Your task to perform on an android device: turn on airplane mode Image 0: 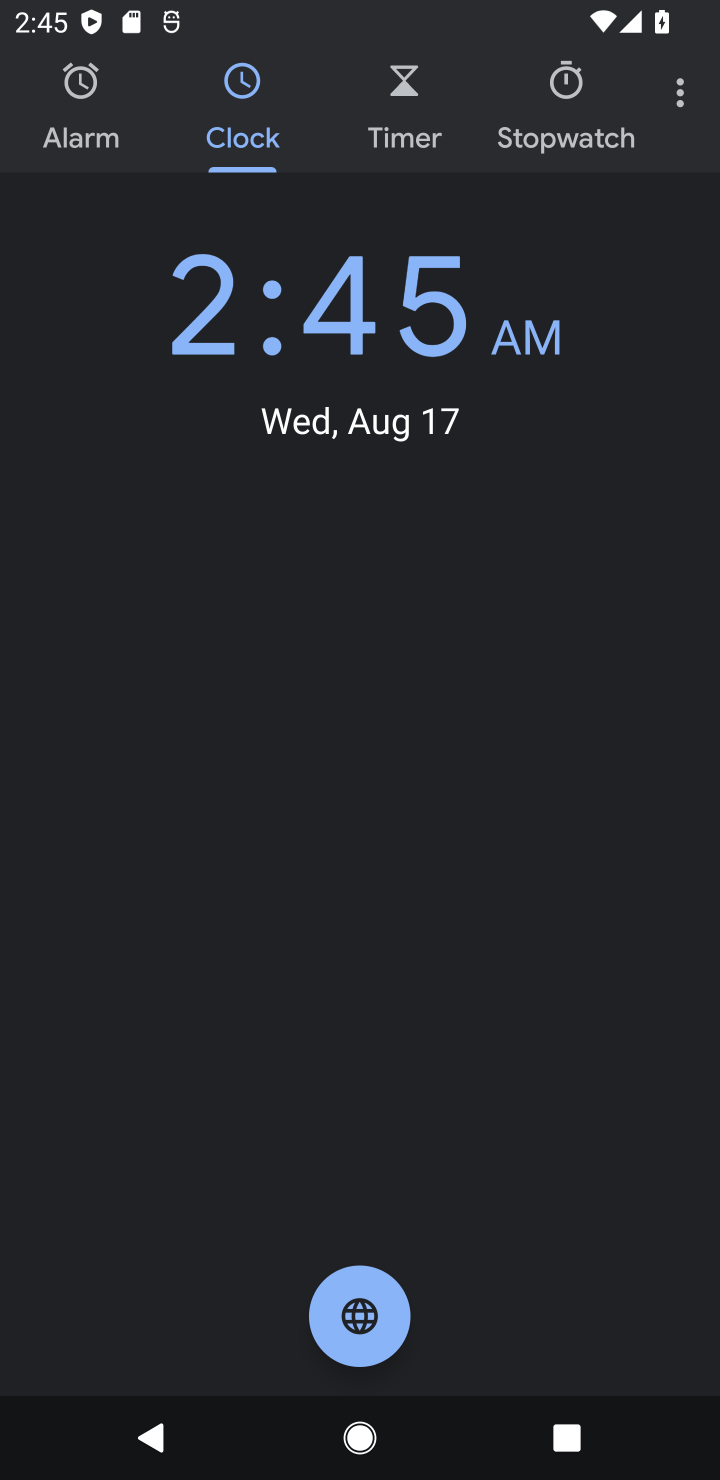
Step 0: press home button
Your task to perform on an android device: turn on airplane mode Image 1: 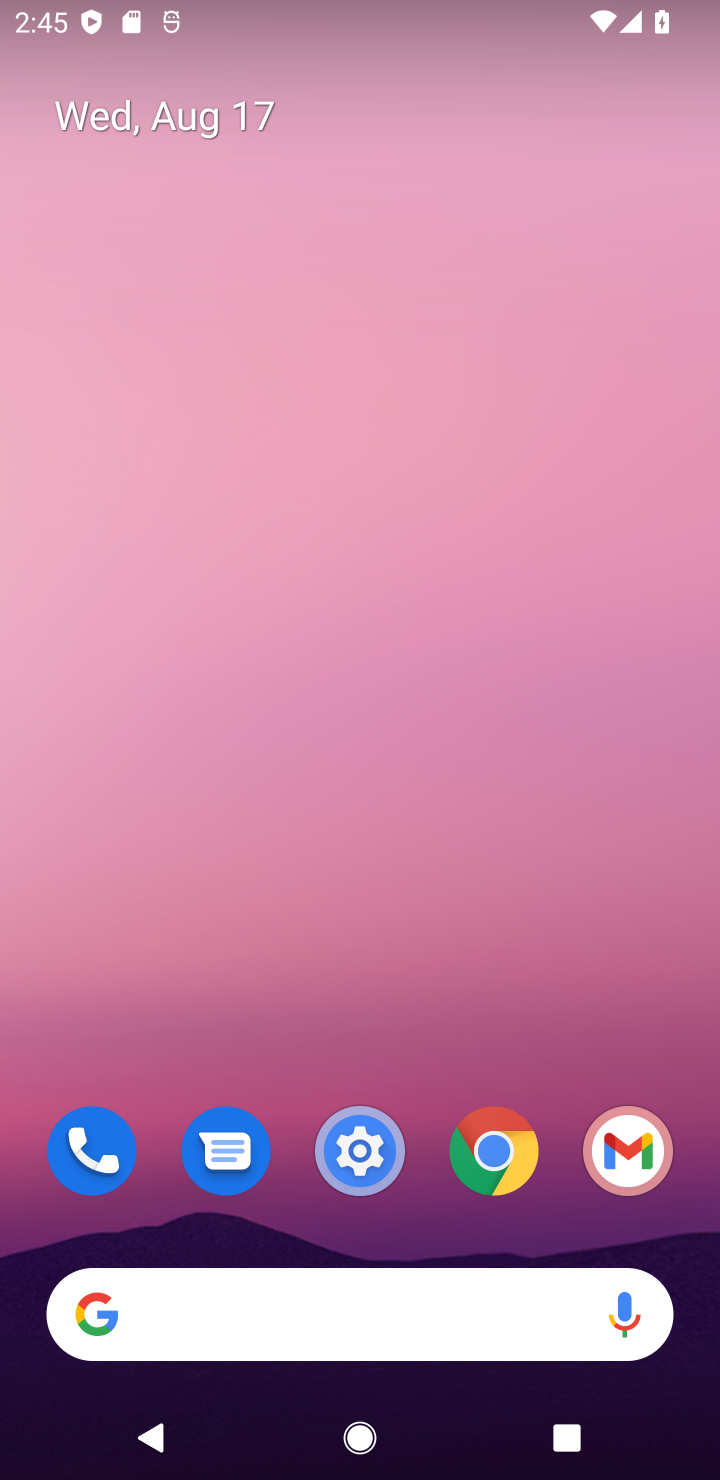
Step 1: drag from (298, 1205) to (318, 608)
Your task to perform on an android device: turn on airplane mode Image 2: 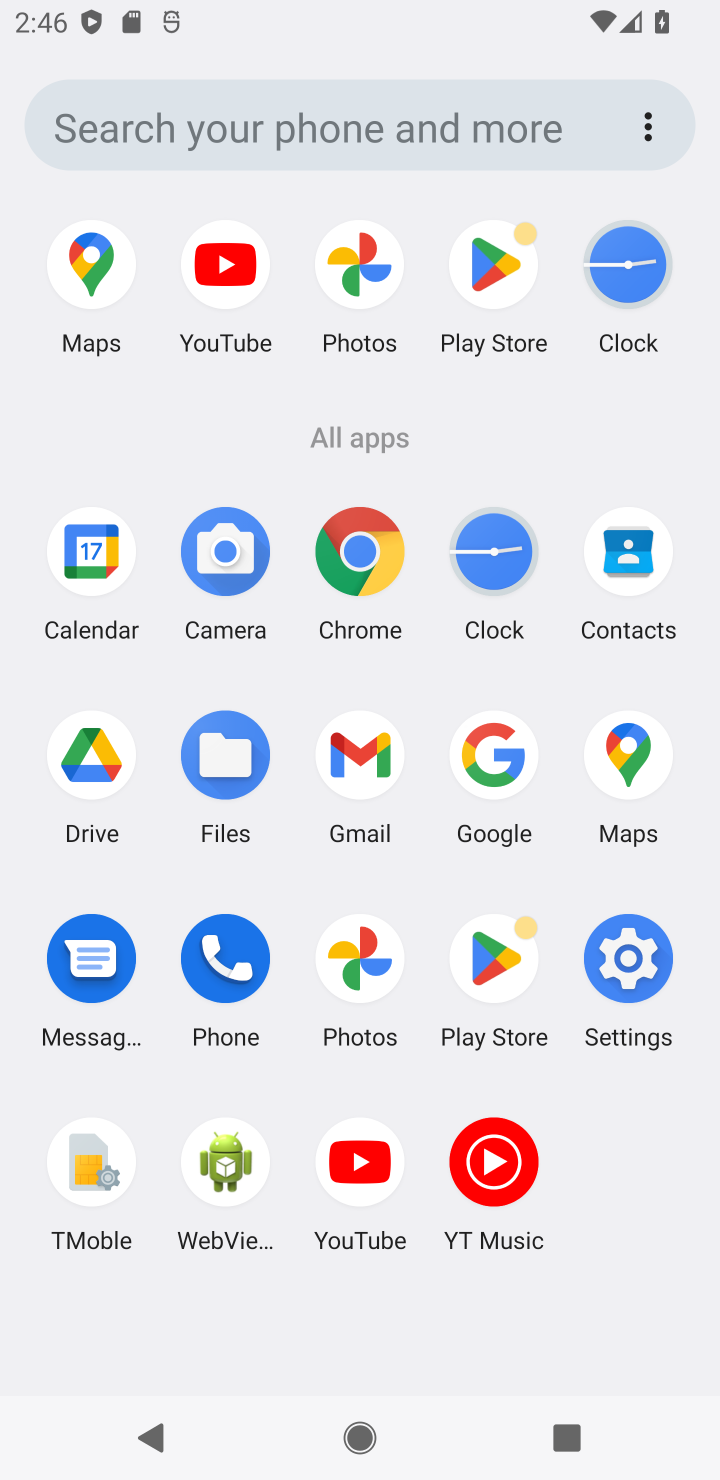
Step 2: click (642, 940)
Your task to perform on an android device: turn on airplane mode Image 3: 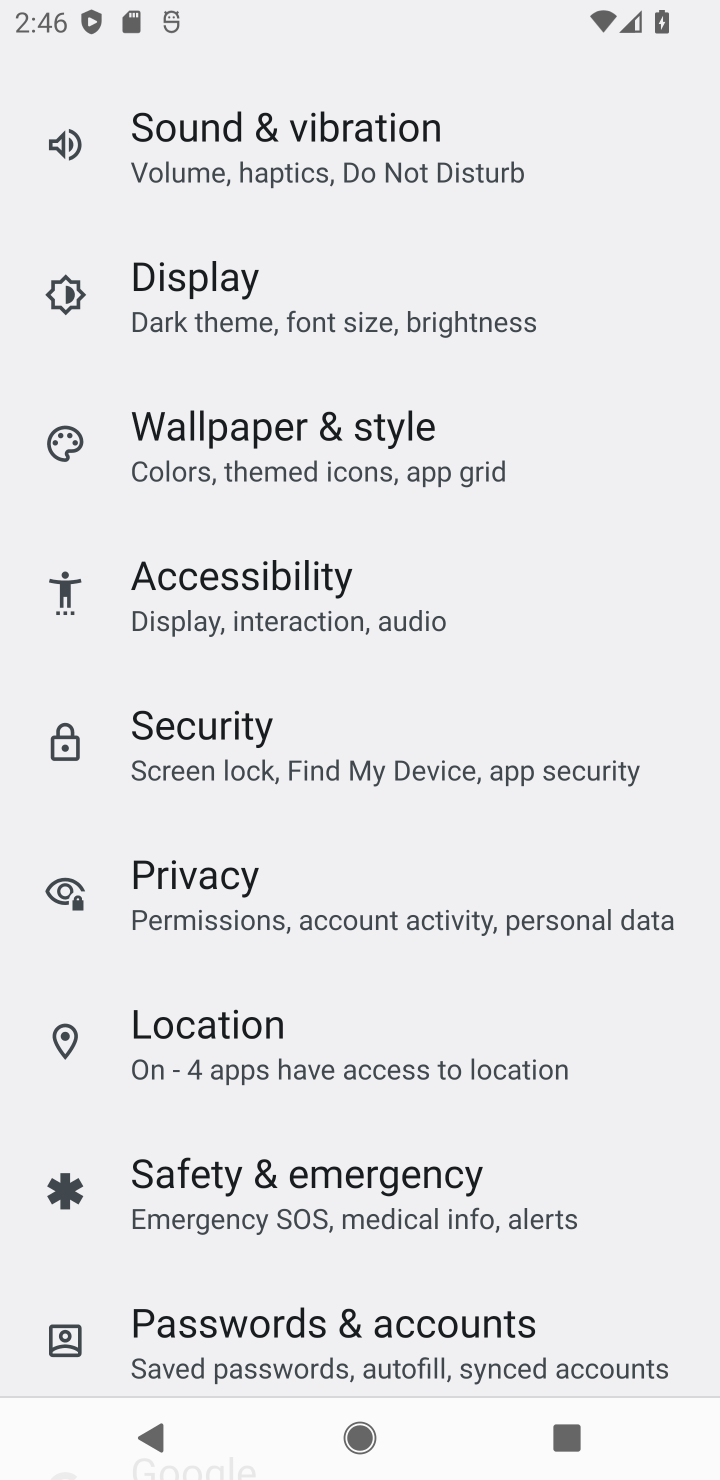
Step 3: drag from (372, 229) to (393, 1413)
Your task to perform on an android device: turn on airplane mode Image 4: 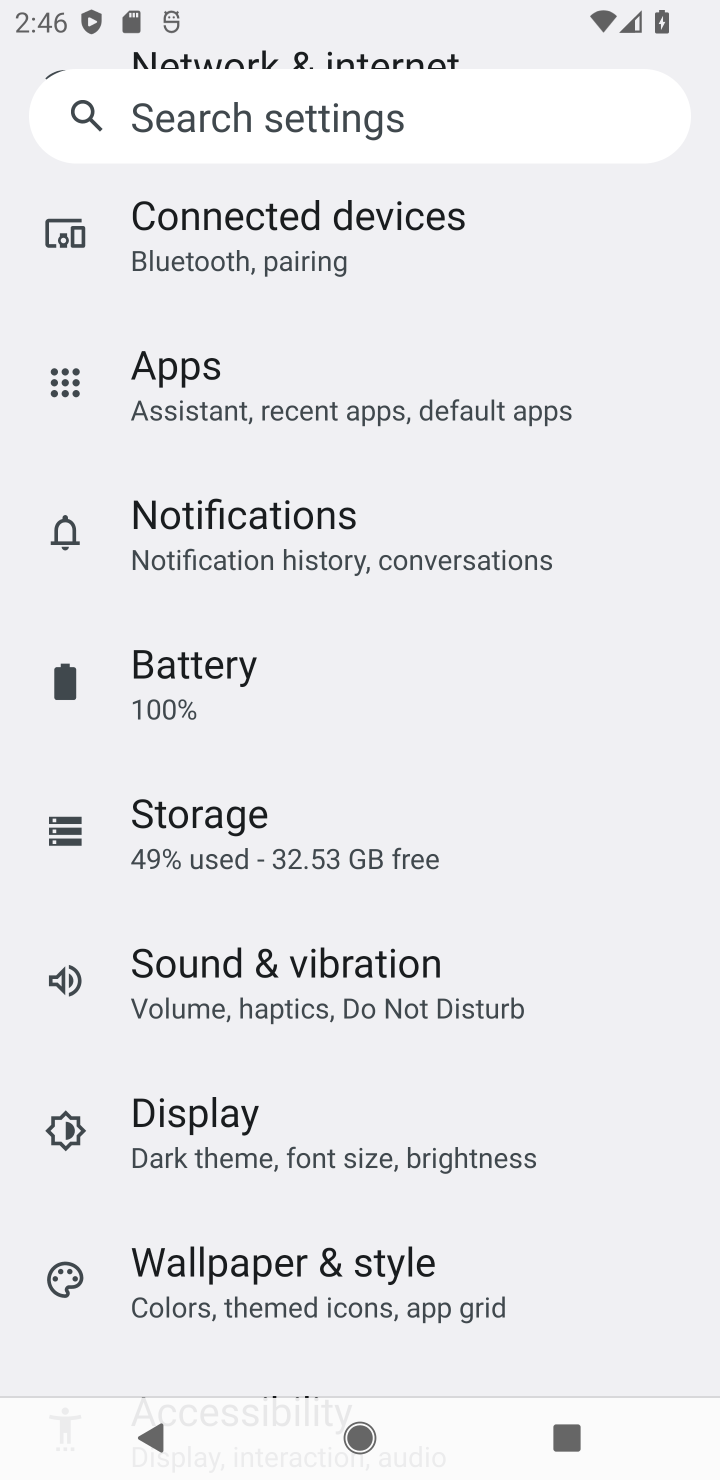
Step 4: drag from (250, 486) to (298, 1208)
Your task to perform on an android device: turn on airplane mode Image 5: 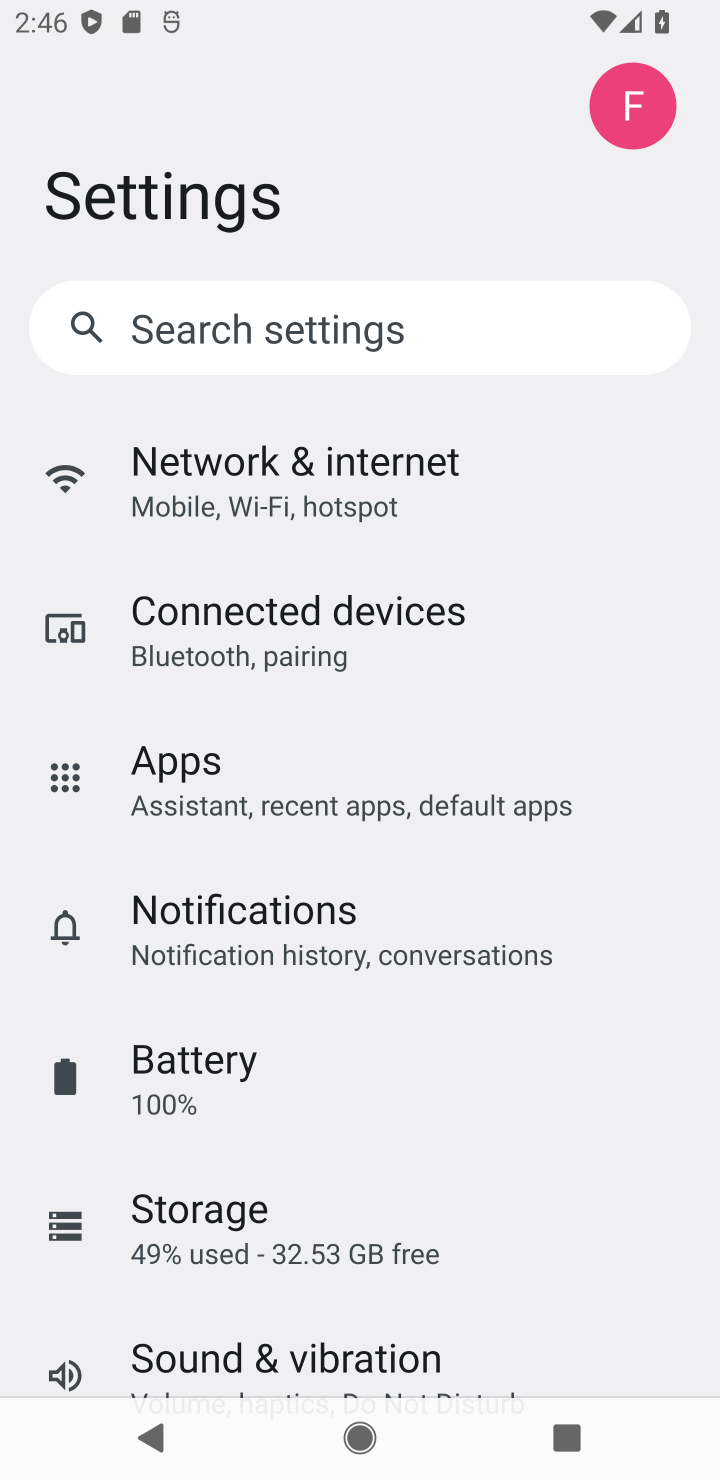
Step 5: click (251, 486)
Your task to perform on an android device: turn on airplane mode Image 6: 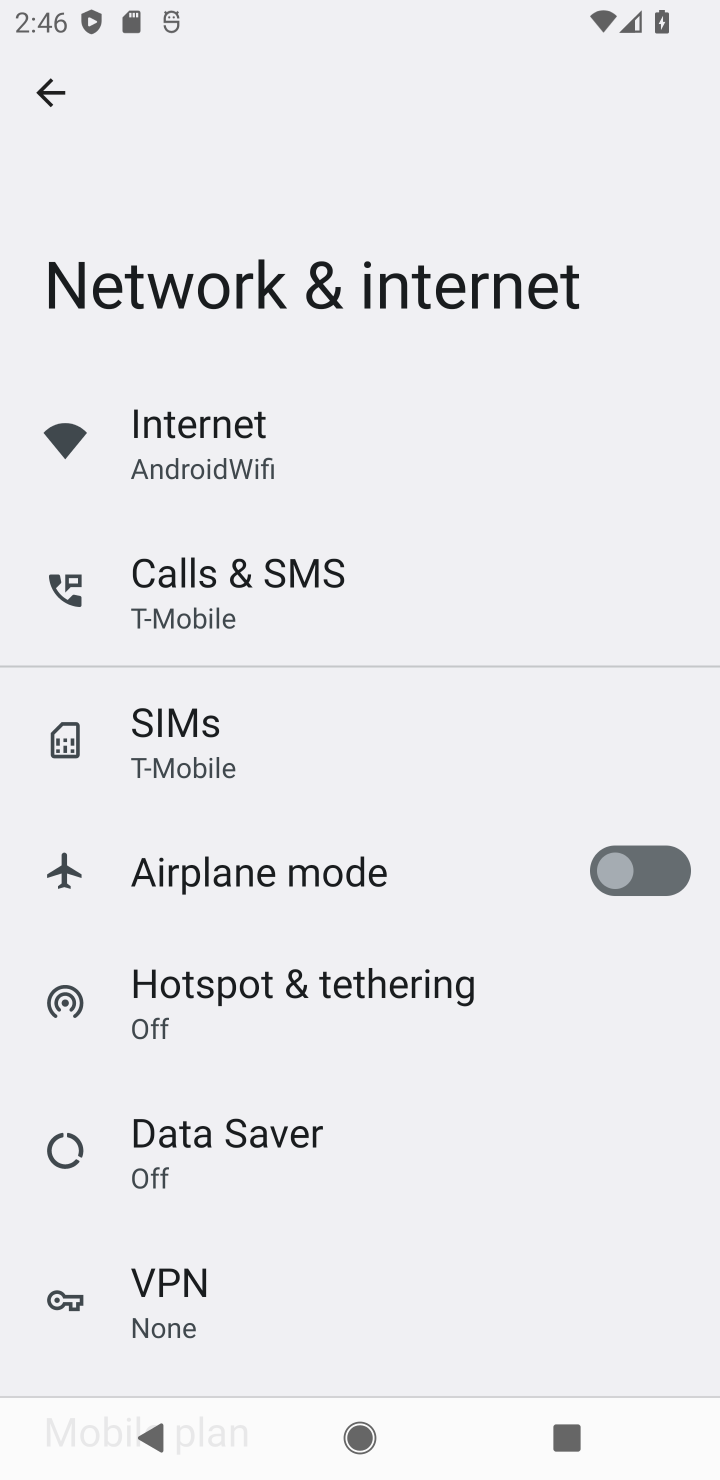
Step 6: click (612, 889)
Your task to perform on an android device: turn on airplane mode Image 7: 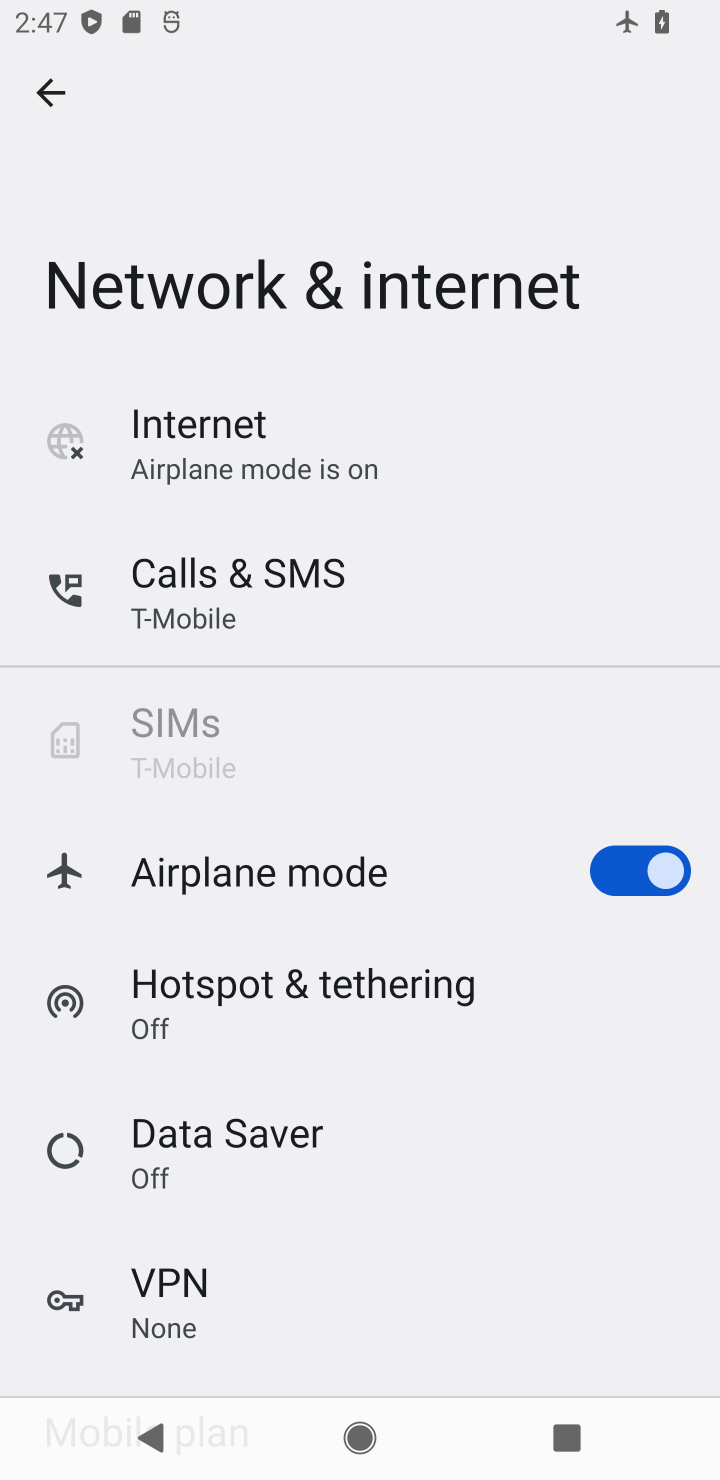
Step 7: task complete